Your task to perform on an android device: turn notification dots off Image 0: 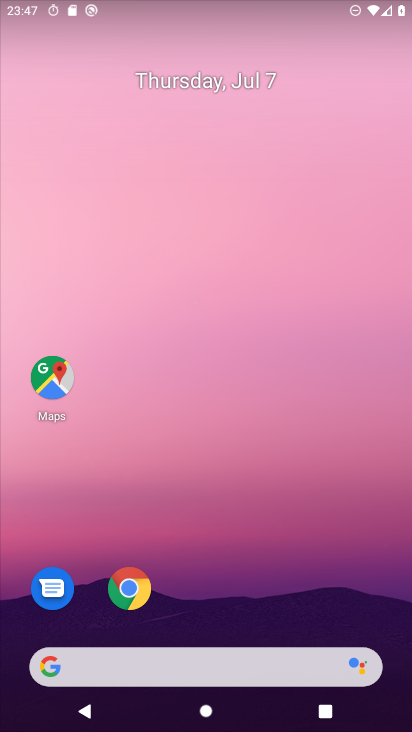
Step 0: drag from (276, 569) to (234, 123)
Your task to perform on an android device: turn notification dots off Image 1: 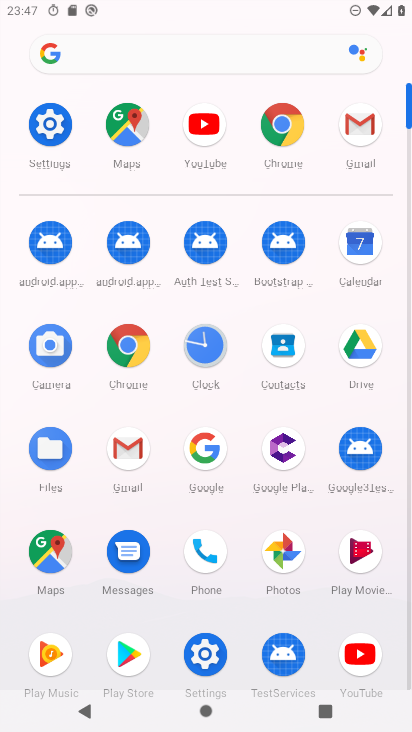
Step 1: click (49, 121)
Your task to perform on an android device: turn notification dots off Image 2: 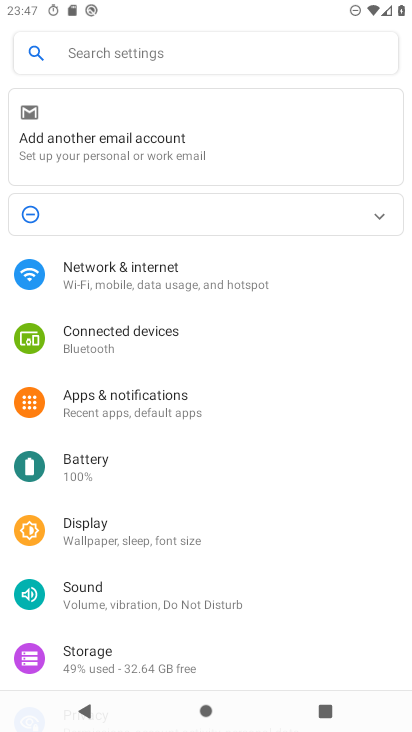
Step 2: click (170, 400)
Your task to perform on an android device: turn notification dots off Image 3: 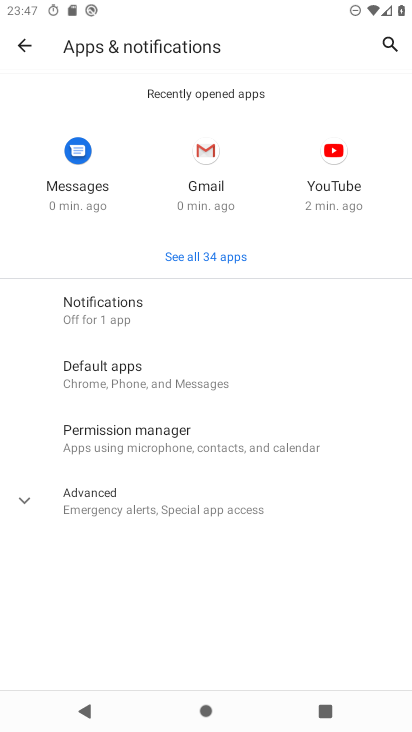
Step 3: click (109, 313)
Your task to perform on an android device: turn notification dots off Image 4: 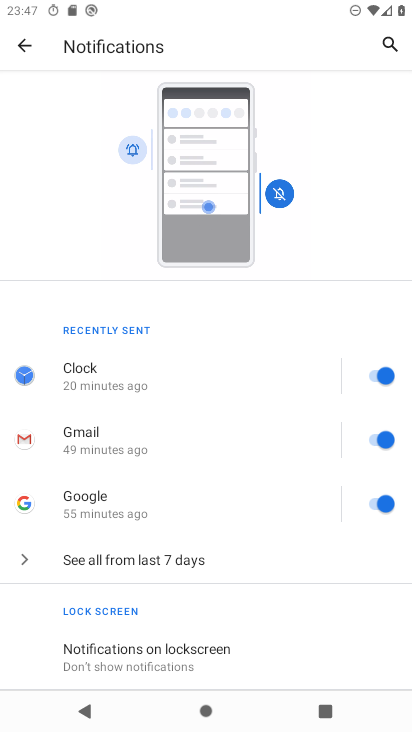
Step 4: drag from (238, 632) to (238, 102)
Your task to perform on an android device: turn notification dots off Image 5: 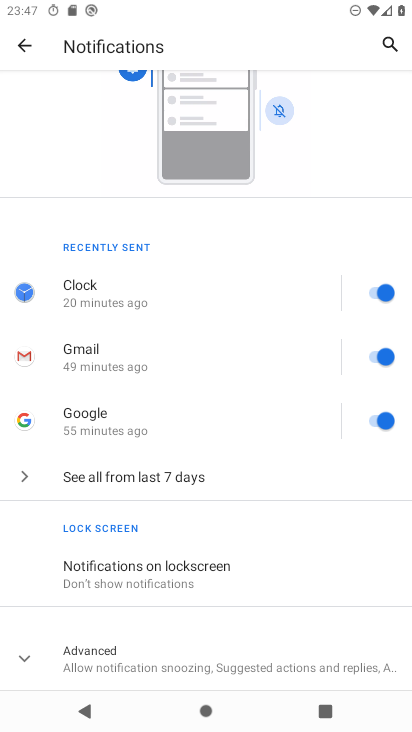
Step 5: click (126, 664)
Your task to perform on an android device: turn notification dots off Image 6: 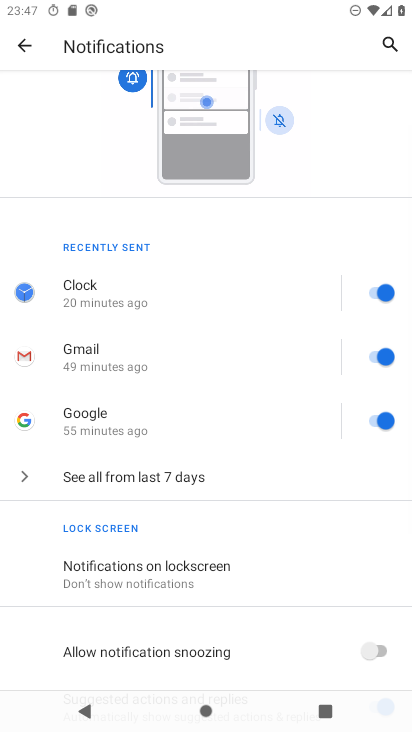
Step 6: drag from (293, 636) to (307, 238)
Your task to perform on an android device: turn notification dots off Image 7: 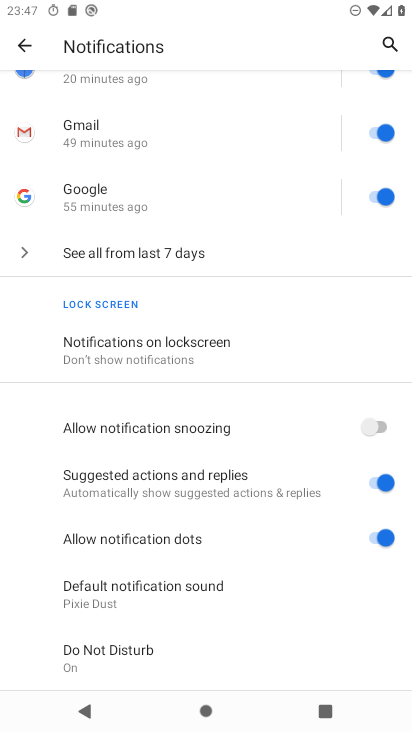
Step 7: click (382, 536)
Your task to perform on an android device: turn notification dots off Image 8: 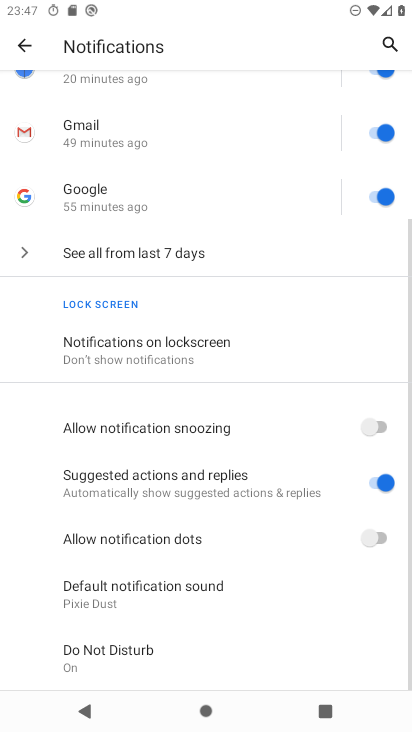
Step 8: task complete